Your task to perform on an android device: turn pop-ups on in chrome Image 0: 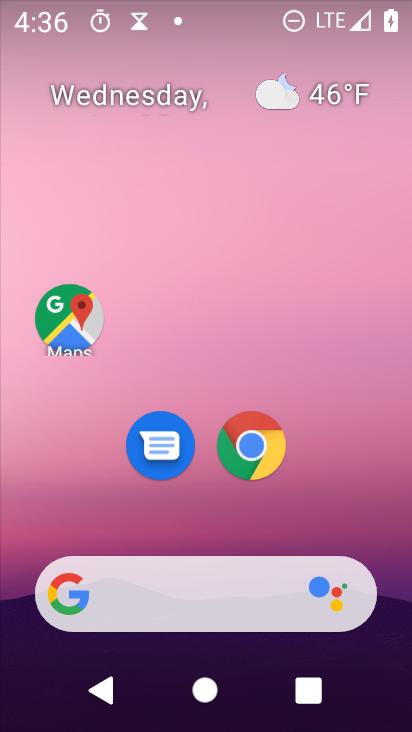
Step 0: click (251, 443)
Your task to perform on an android device: turn pop-ups on in chrome Image 1: 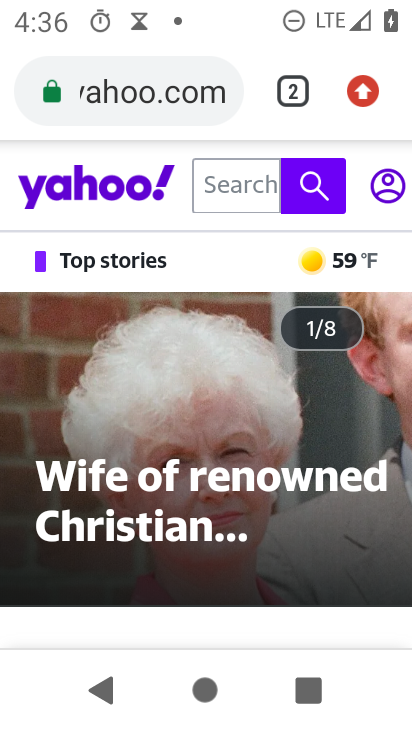
Step 1: click (369, 93)
Your task to perform on an android device: turn pop-ups on in chrome Image 2: 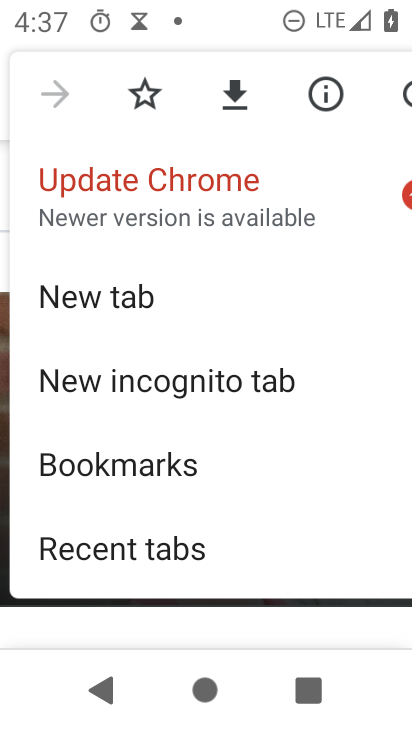
Step 2: drag from (197, 426) to (230, 285)
Your task to perform on an android device: turn pop-ups on in chrome Image 3: 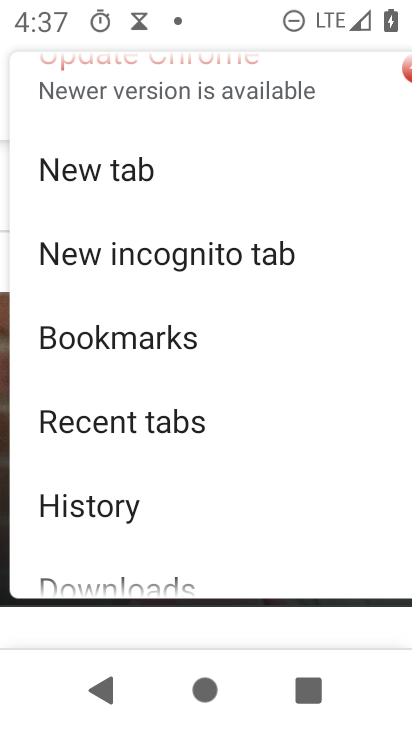
Step 3: drag from (227, 429) to (263, 259)
Your task to perform on an android device: turn pop-ups on in chrome Image 4: 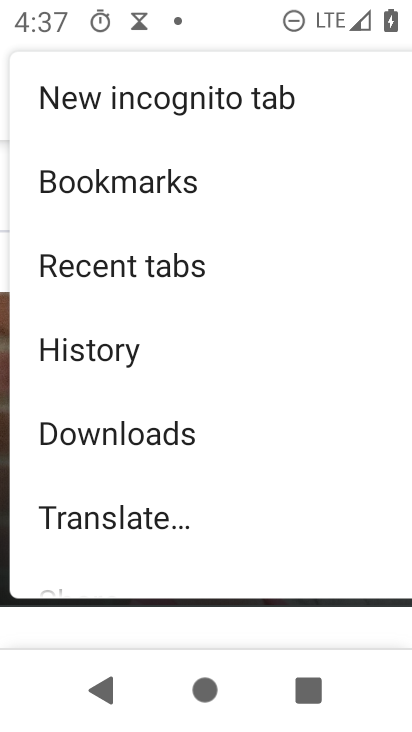
Step 4: drag from (204, 464) to (257, 295)
Your task to perform on an android device: turn pop-ups on in chrome Image 5: 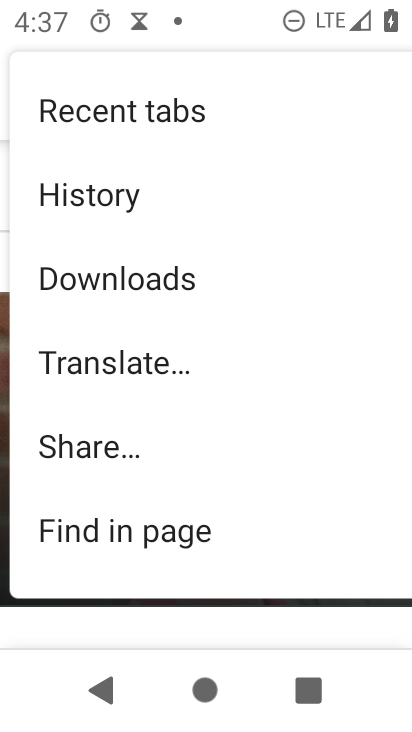
Step 5: drag from (189, 477) to (255, 307)
Your task to perform on an android device: turn pop-ups on in chrome Image 6: 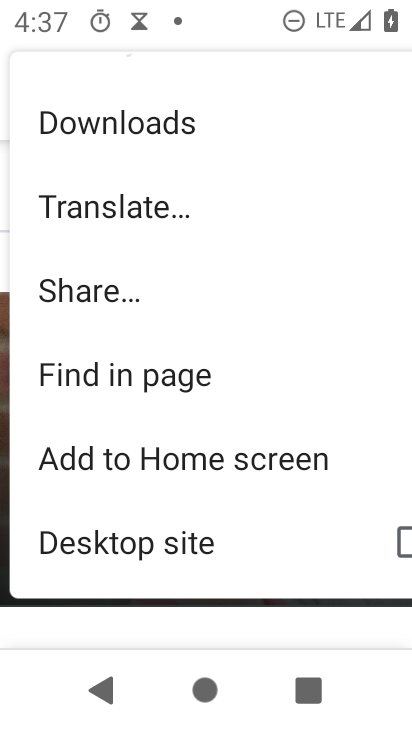
Step 6: drag from (189, 509) to (243, 340)
Your task to perform on an android device: turn pop-ups on in chrome Image 7: 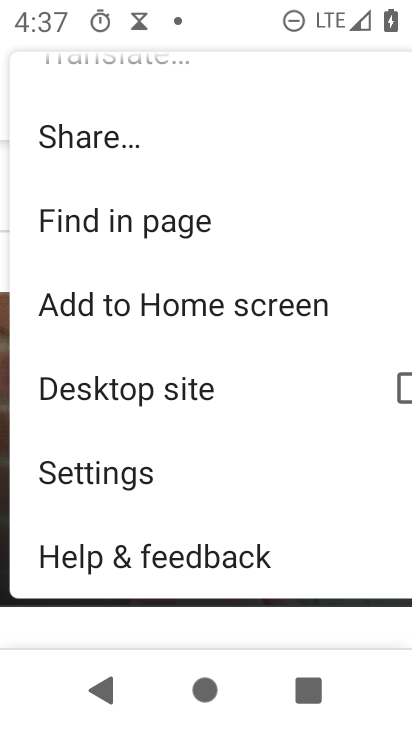
Step 7: click (137, 475)
Your task to perform on an android device: turn pop-ups on in chrome Image 8: 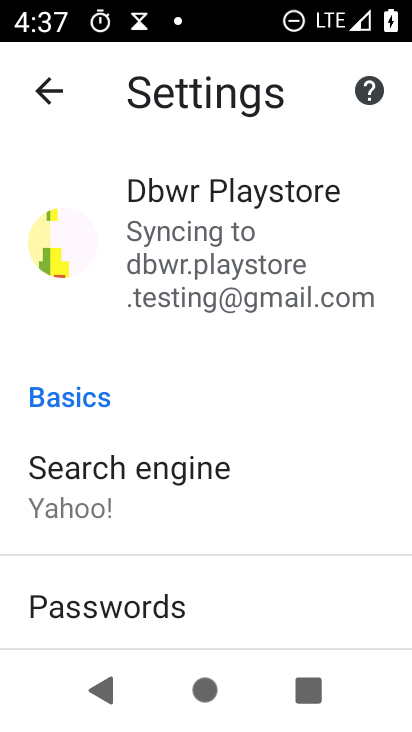
Step 8: drag from (204, 537) to (248, 387)
Your task to perform on an android device: turn pop-ups on in chrome Image 9: 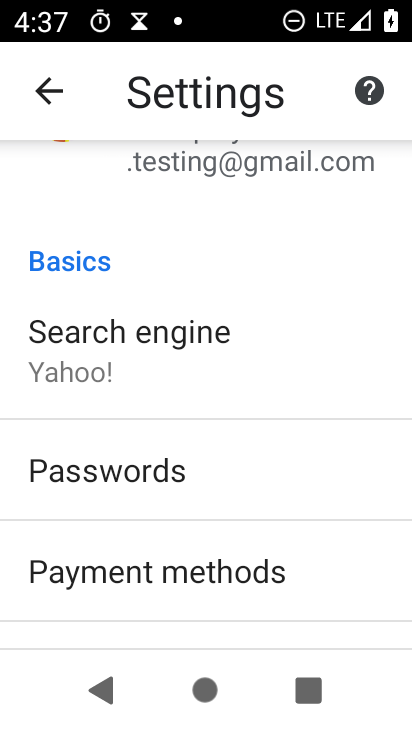
Step 9: drag from (221, 487) to (279, 339)
Your task to perform on an android device: turn pop-ups on in chrome Image 10: 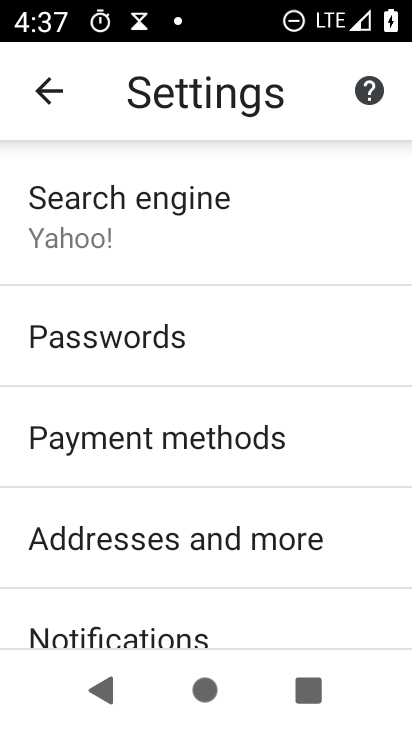
Step 10: drag from (225, 506) to (279, 349)
Your task to perform on an android device: turn pop-ups on in chrome Image 11: 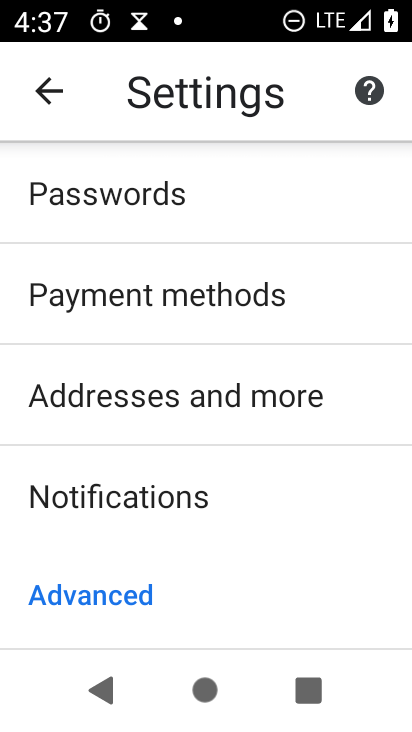
Step 11: drag from (243, 520) to (307, 355)
Your task to perform on an android device: turn pop-ups on in chrome Image 12: 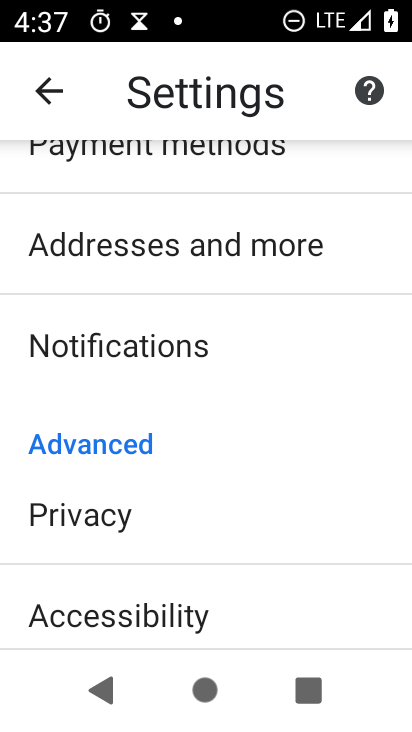
Step 12: drag from (271, 414) to (311, 355)
Your task to perform on an android device: turn pop-ups on in chrome Image 13: 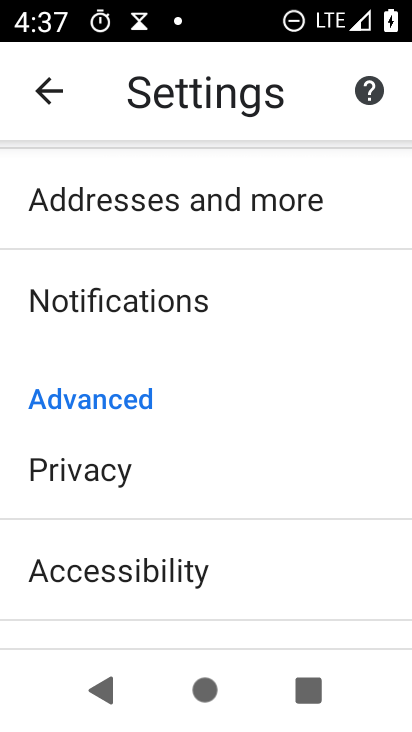
Step 13: drag from (217, 516) to (292, 345)
Your task to perform on an android device: turn pop-ups on in chrome Image 14: 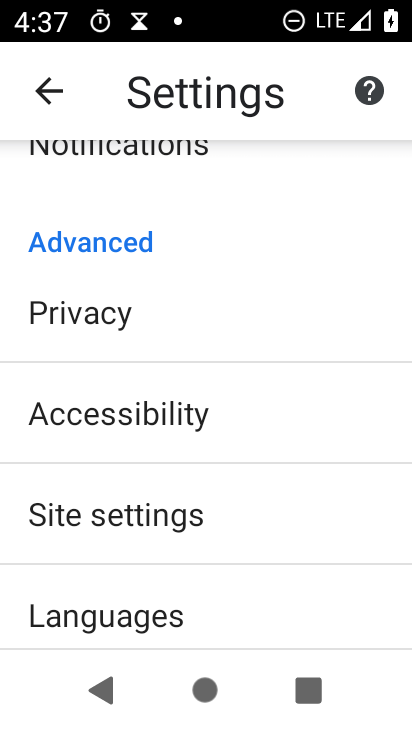
Step 14: click (175, 509)
Your task to perform on an android device: turn pop-ups on in chrome Image 15: 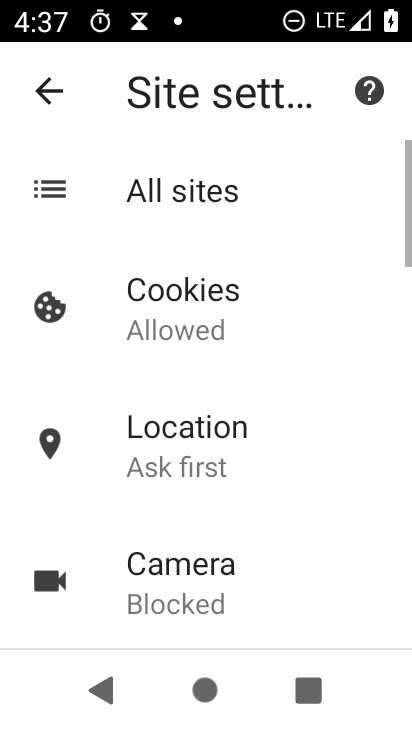
Step 15: drag from (245, 523) to (272, 367)
Your task to perform on an android device: turn pop-ups on in chrome Image 16: 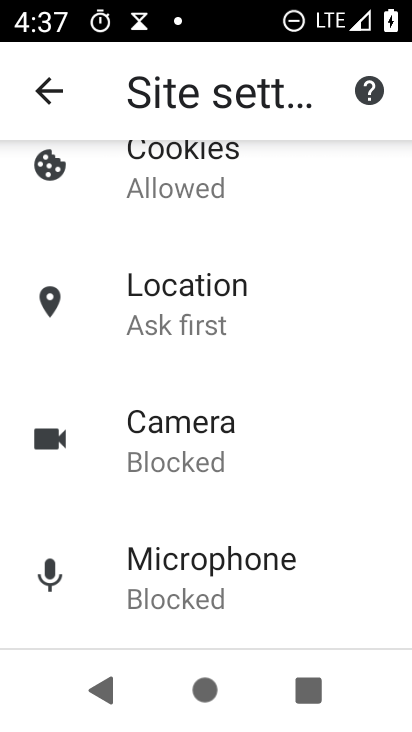
Step 16: drag from (266, 523) to (319, 373)
Your task to perform on an android device: turn pop-ups on in chrome Image 17: 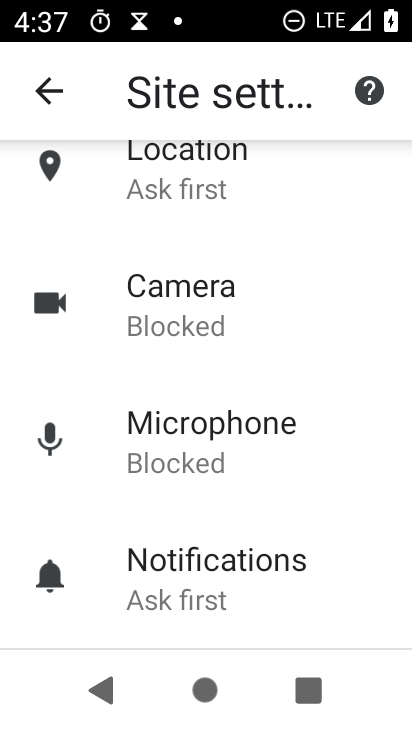
Step 17: drag from (270, 532) to (317, 376)
Your task to perform on an android device: turn pop-ups on in chrome Image 18: 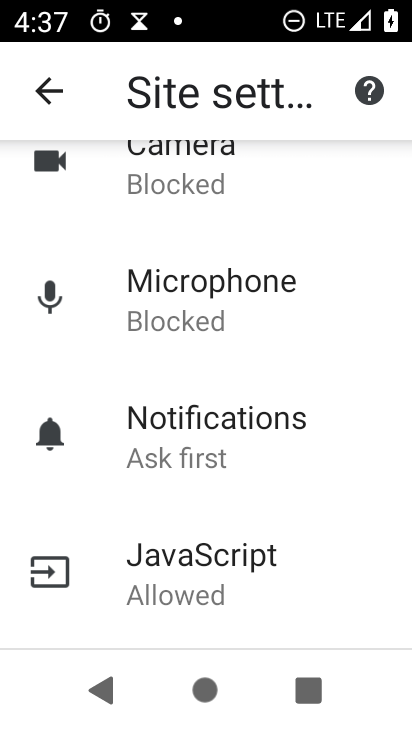
Step 18: drag from (279, 555) to (333, 347)
Your task to perform on an android device: turn pop-ups on in chrome Image 19: 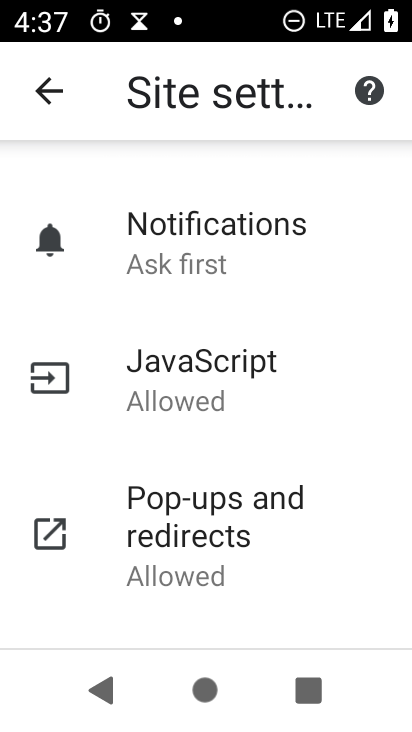
Step 19: click (264, 489)
Your task to perform on an android device: turn pop-ups on in chrome Image 20: 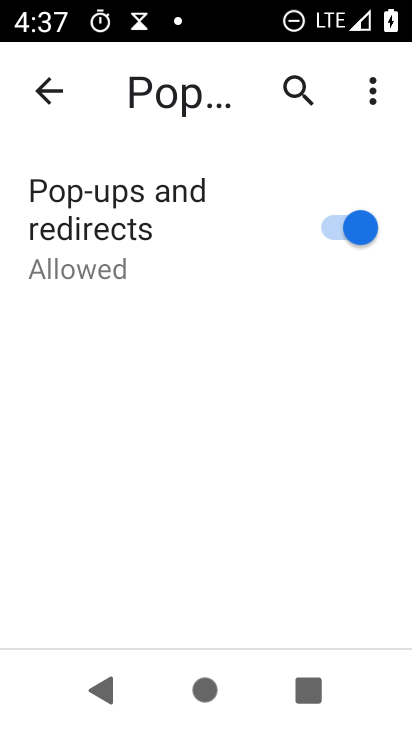
Step 20: task complete